Your task to perform on an android device: Turn off the flashlight Image 0: 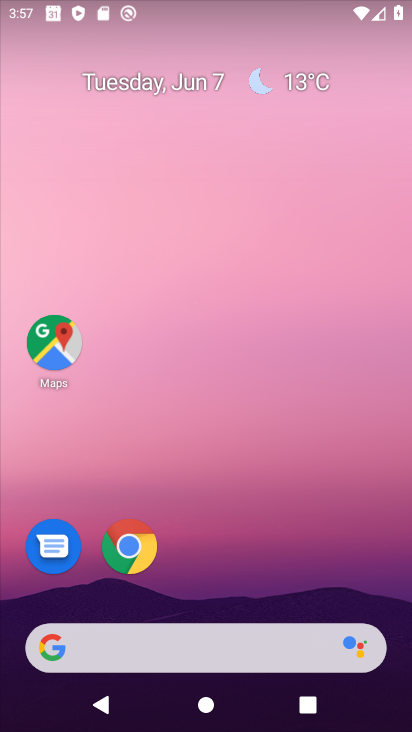
Step 0: drag from (194, 609) to (207, 165)
Your task to perform on an android device: Turn off the flashlight Image 1: 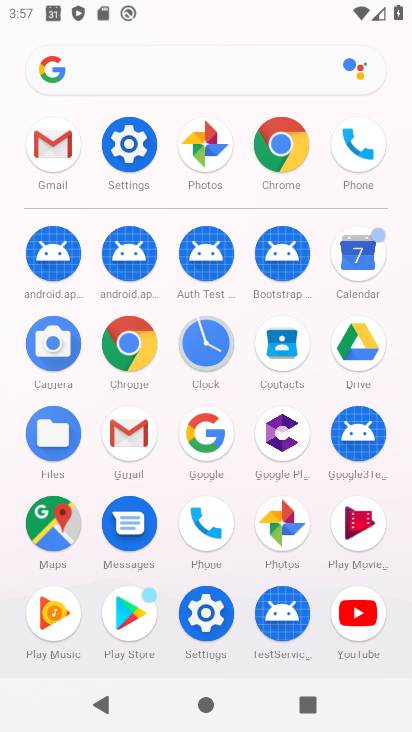
Step 1: click (127, 135)
Your task to perform on an android device: Turn off the flashlight Image 2: 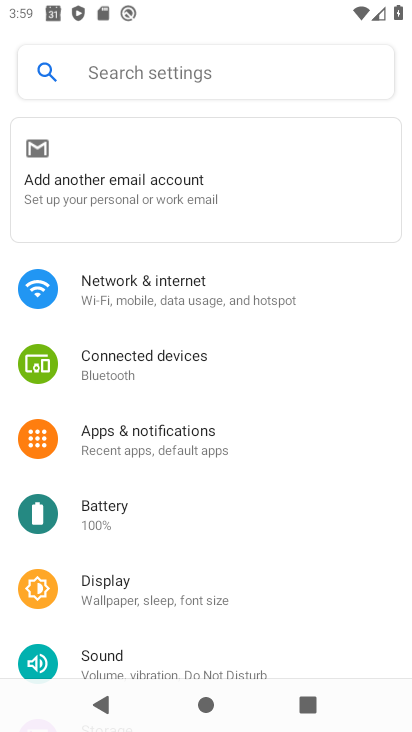
Step 2: task complete